Your task to perform on an android device: Go to notification settings Image 0: 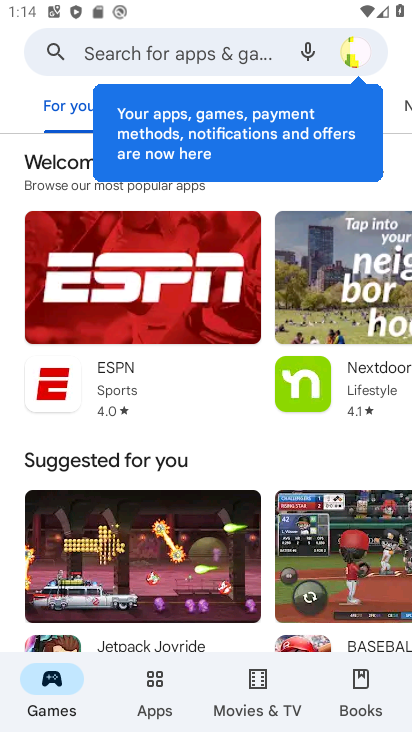
Step 0: task complete